Your task to perform on an android device: check google app version Image 0: 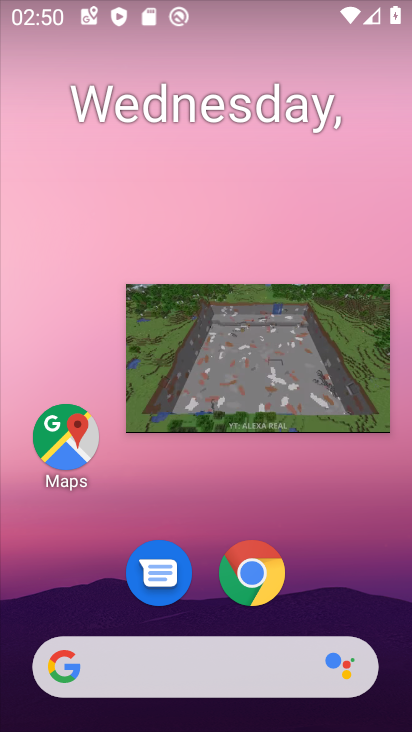
Step 0: click (354, 312)
Your task to perform on an android device: check google app version Image 1: 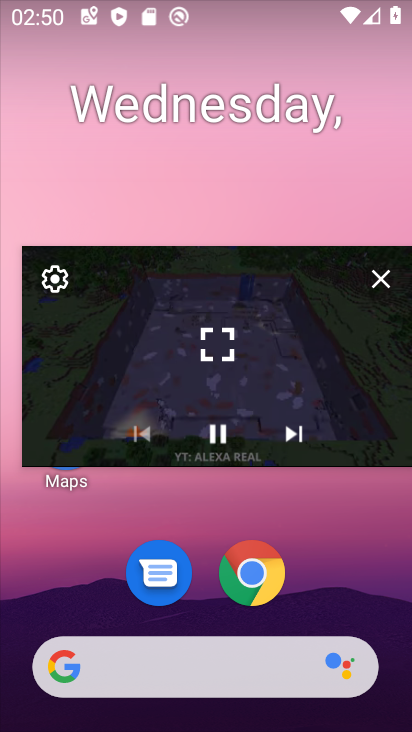
Step 1: click (385, 274)
Your task to perform on an android device: check google app version Image 2: 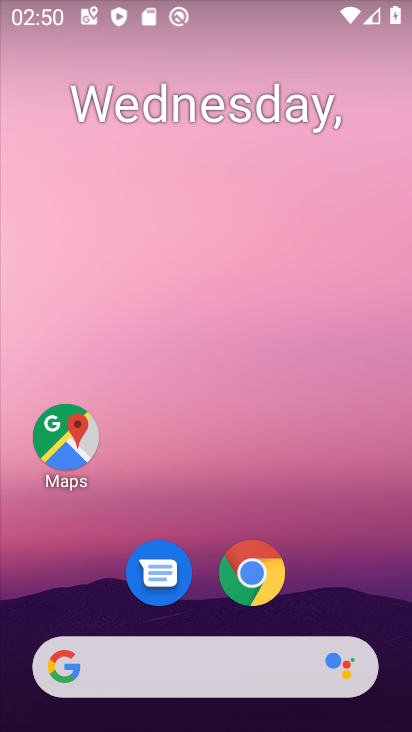
Step 2: drag from (337, 592) to (269, 39)
Your task to perform on an android device: check google app version Image 3: 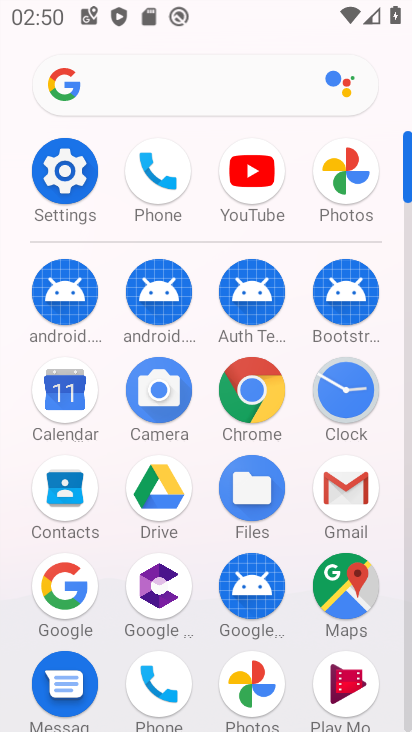
Step 3: click (59, 581)
Your task to perform on an android device: check google app version Image 4: 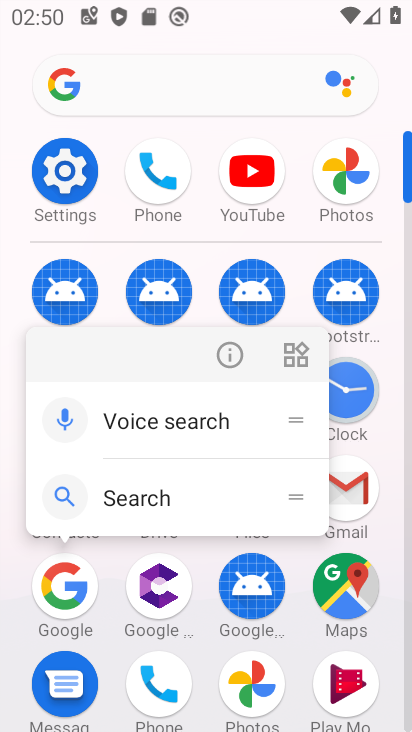
Step 4: click (228, 353)
Your task to perform on an android device: check google app version Image 5: 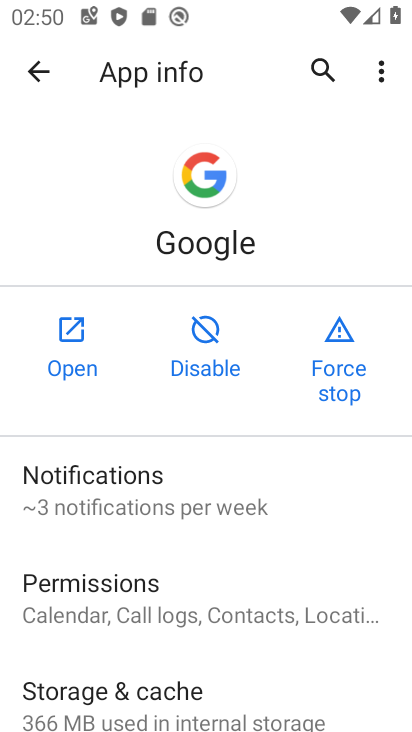
Step 5: drag from (168, 571) to (262, 379)
Your task to perform on an android device: check google app version Image 6: 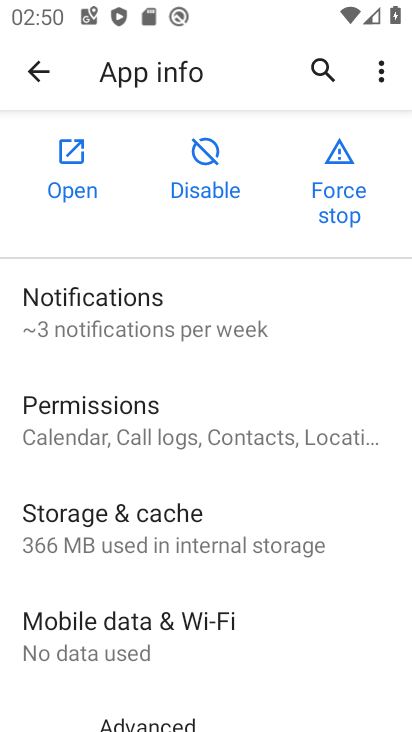
Step 6: drag from (214, 585) to (310, 406)
Your task to perform on an android device: check google app version Image 7: 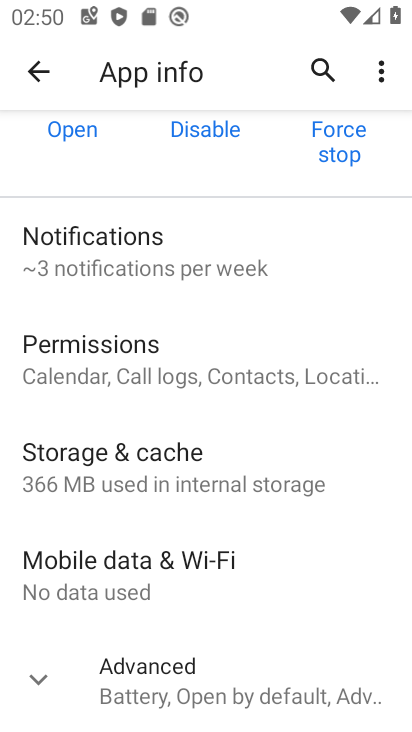
Step 7: click (168, 668)
Your task to perform on an android device: check google app version Image 8: 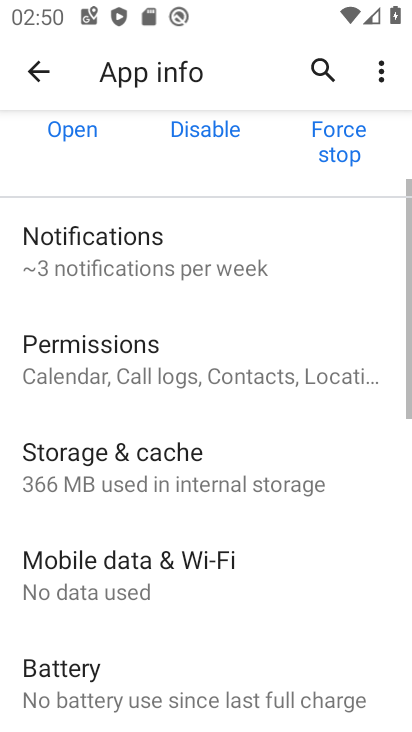
Step 8: task complete